Your task to perform on an android device: choose inbox layout in the gmail app Image 0: 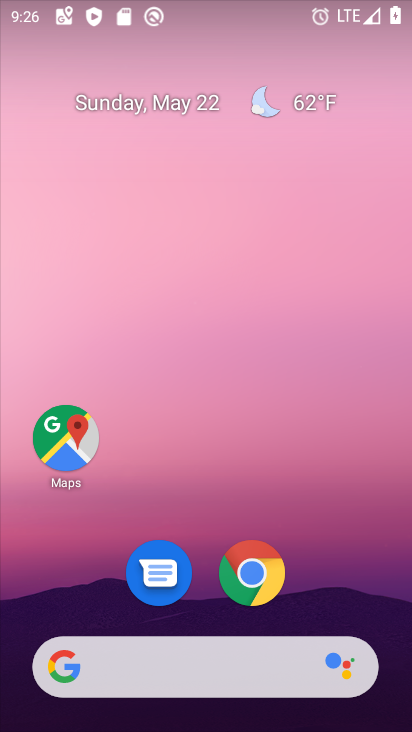
Step 0: drag from (231, 589) to (169, 56)
Your task to perform on an android device: choose inbox layout in the gmail app Image 1: 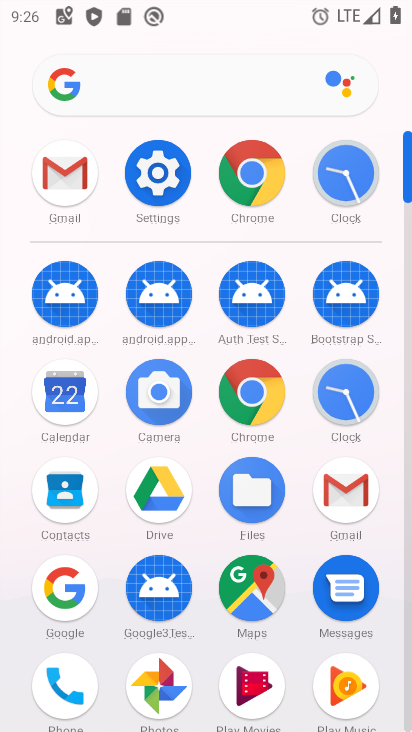
Step 1: click (349, 495)
Your task to perform on an android device: choose inbox layout in the gmail app Image 2: 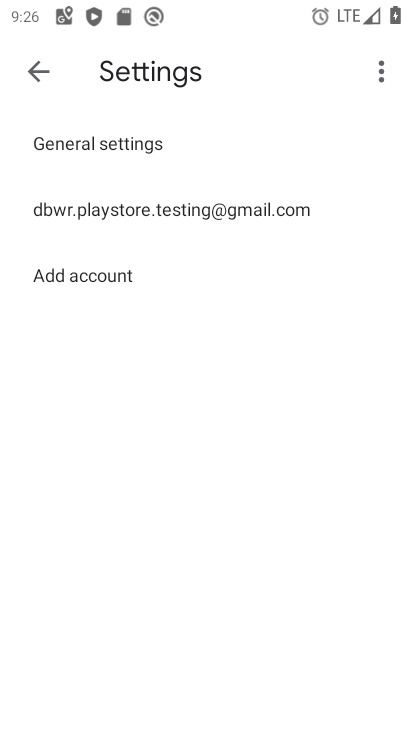
Step 2: click (277, 192)
Your task to perform on an android device: choose inbox layout in the gmail app Image 3: 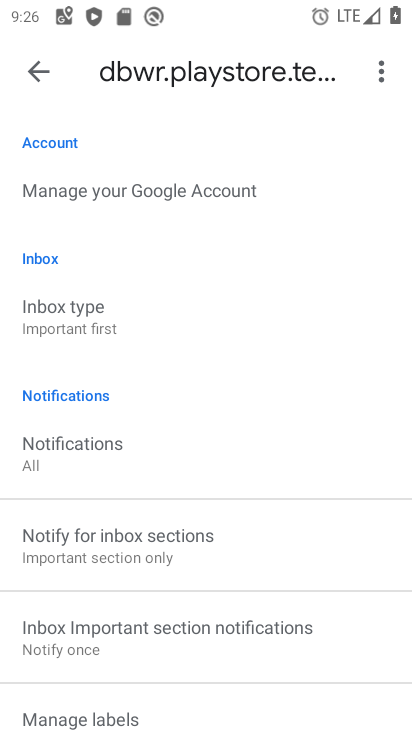
Step 3: drag from (217, 582) to (222, 475)
Your task to perform on an android device: choose inbox layout in the gmail app Image 4: 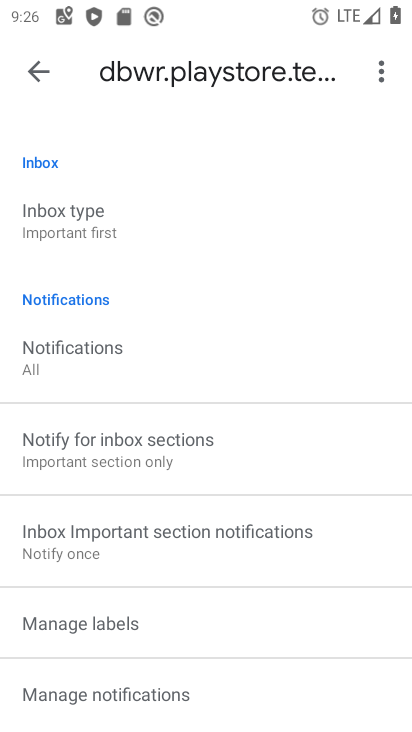
Step 4: click (93, 230)
Your task to perform on an android device: choose inbox layout in the gmail app Image 5: 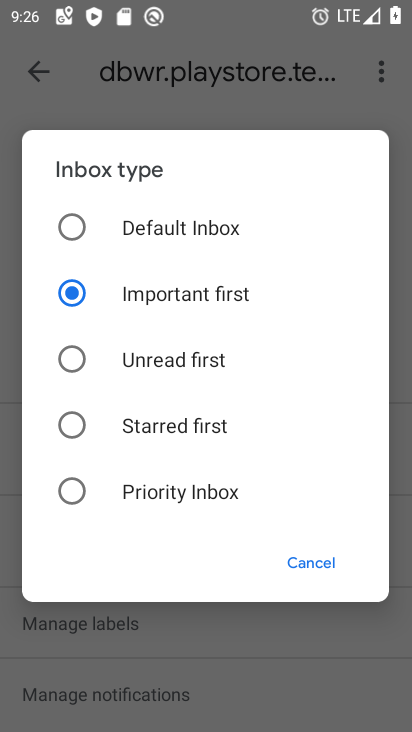
Step 5: click (59, 490)
Your task to perform on an android device: choose inbox layout in the gmail app Image 6: 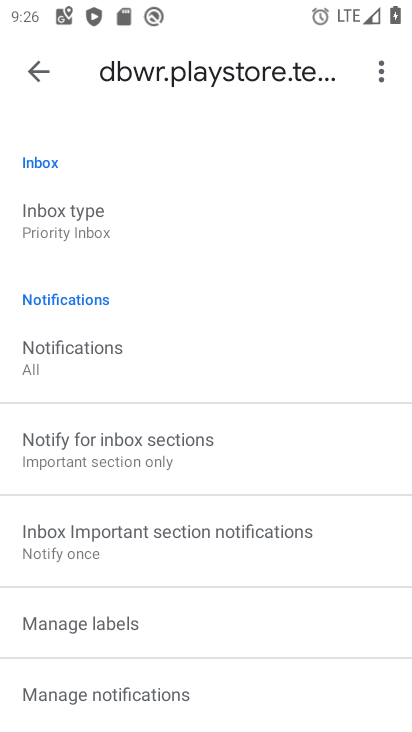
Step 6: task complete